Your task to perform on an android device: search for starred emails in the gmail app Image 0: 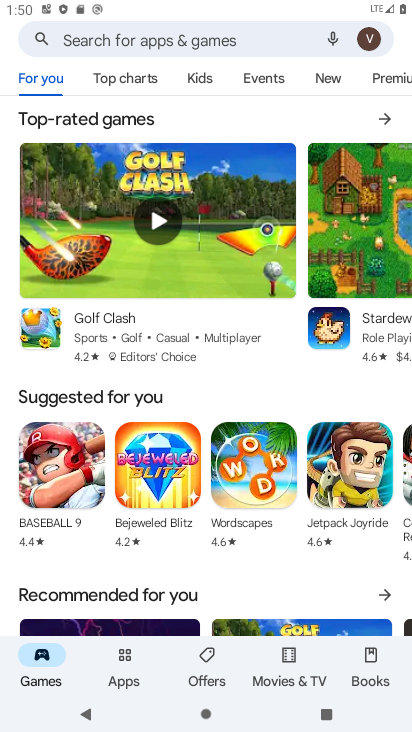
Step 0: press home button
Your task to perform on an android device: search for starred emails in the gmail app Image 1: 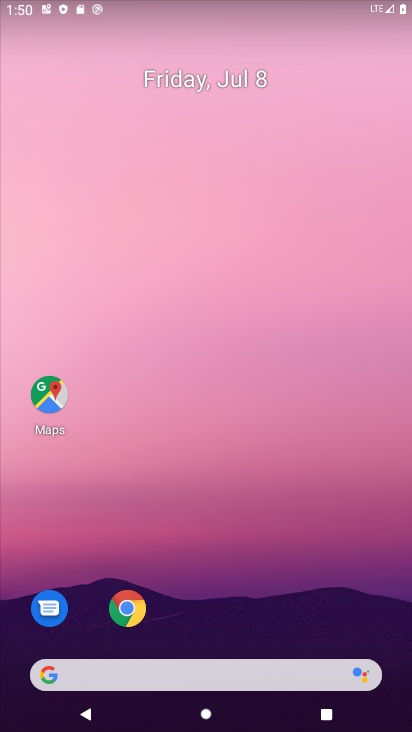
Step 1: drag from (387, 632) to (349, 89)
Your task to perform on an android device: search for starred emails in the gmail app Image 2: 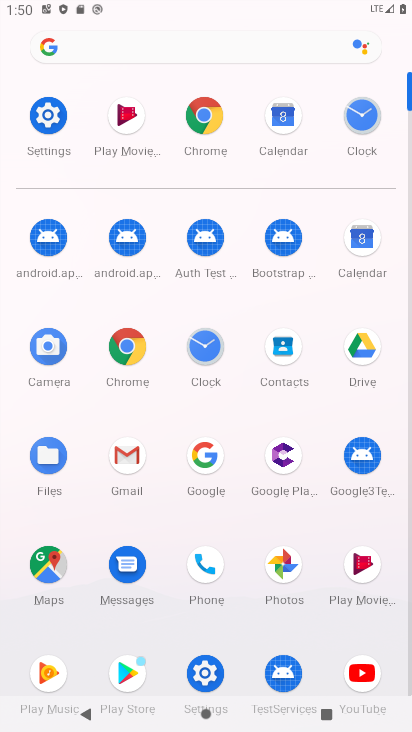
Step 2: click (124, 454)
Your task to perform on an android device: search for starred emails in the gmail app Image 3: 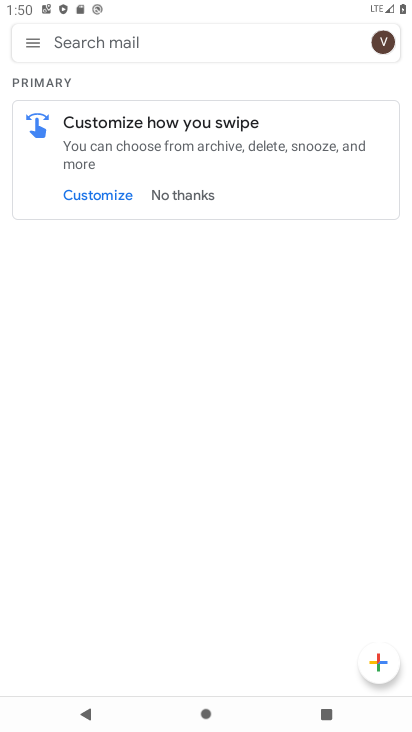
Step 3: click (30, 38)
Your task to perform on an android device: search for starred emails in the gmail app Image 4: 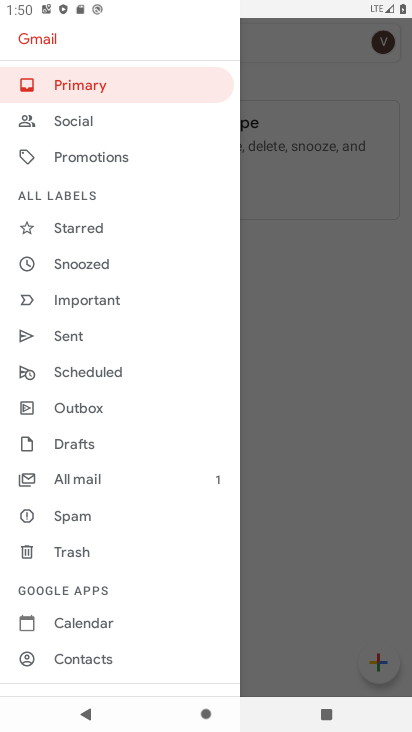
Step 4: click (77, 227)
Your task to perform on an android device: search for starred emails in the gmail app Image 5: 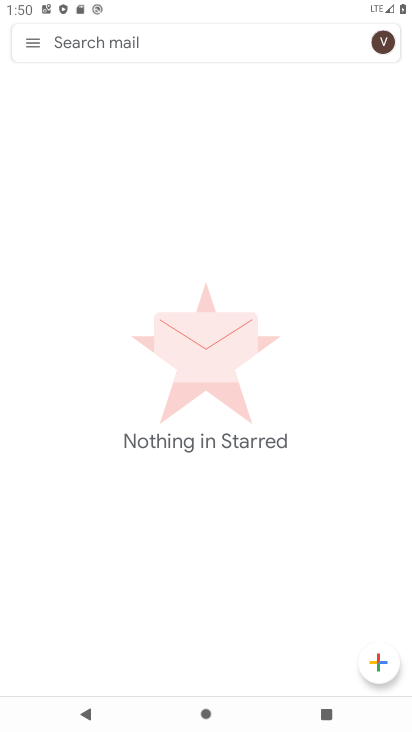
Step 5: task complete